Your task to perform on an android device: Open sound settings Image 0: 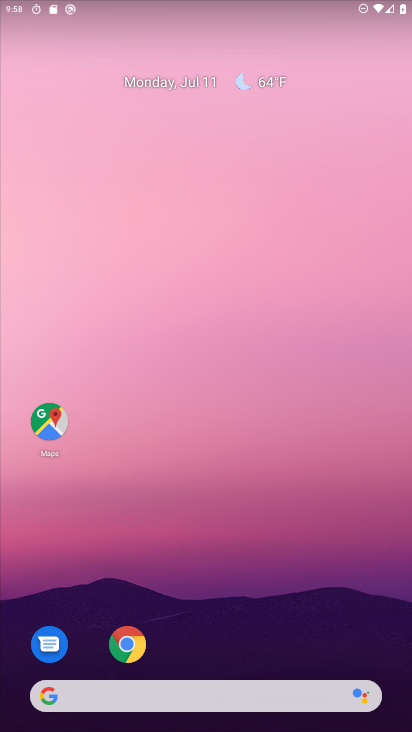
Step 0: drag from (301, 554) to (298, 58)
Your task to perform on an android device: Open sound settings Image 1: 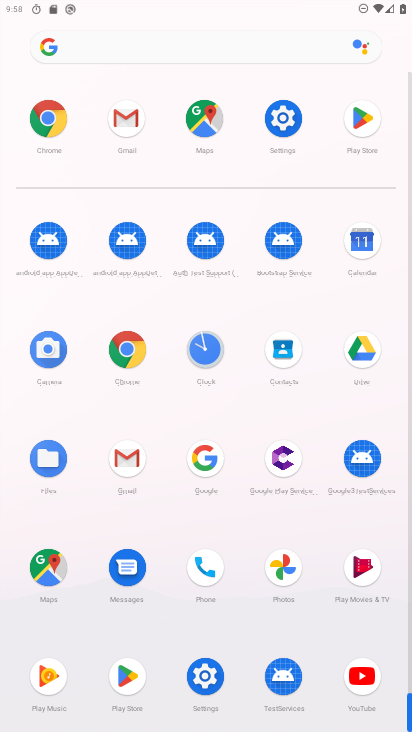
Step 1: click (290, 116)
Your task to perform on an android device: Open sound settings Image 2: 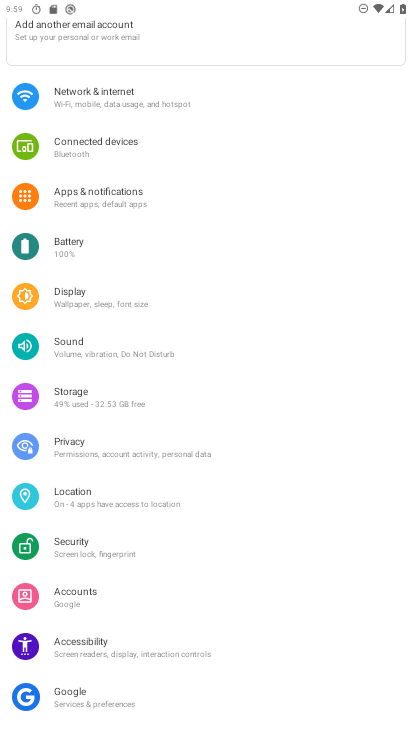
Step 2: click (67, 346)
Your task to perform on an android device: Open sound settings Image 3: 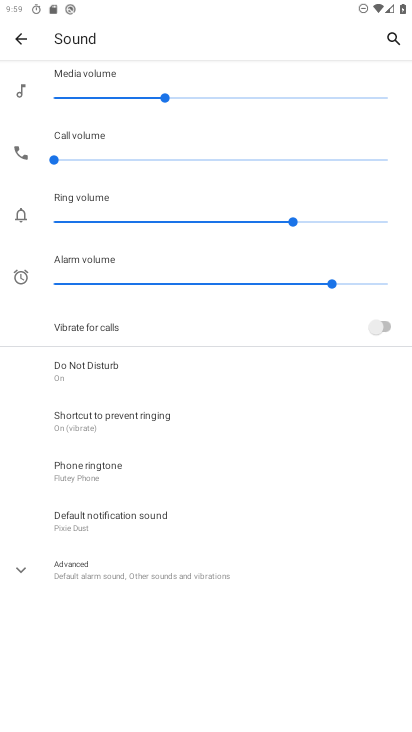
Step 3: task complete